Your task to perform on an android device: change the upload size in google photos Image 0: 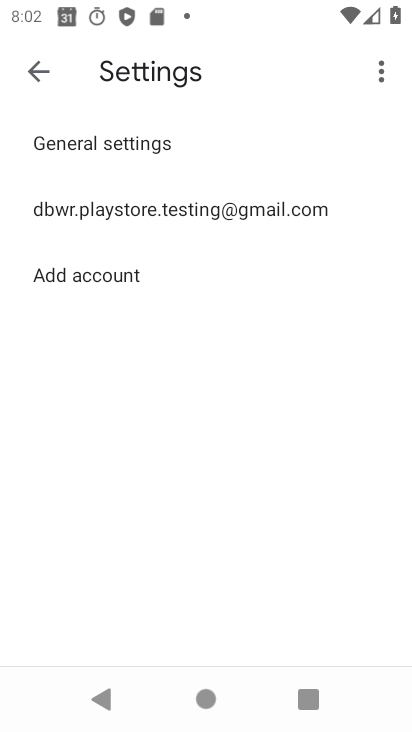
Step 0: press home button
Your task to perform on an android device: change the upload size in google photos Image 1: 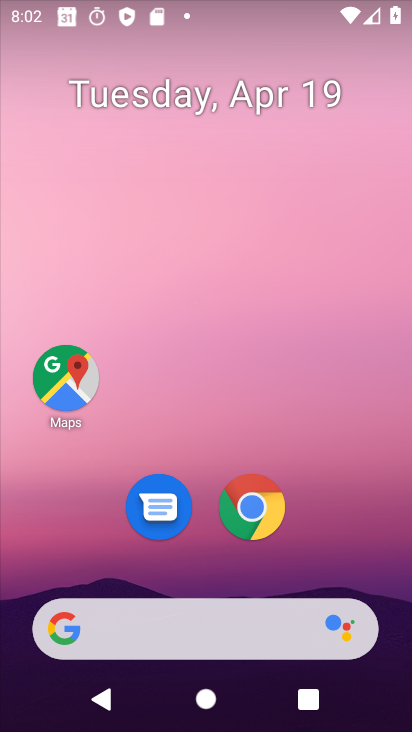
Step 1: drag from (274, 362) to (219, 142)
Your task to perform on an android device: change the upload size in google photos Image 2: 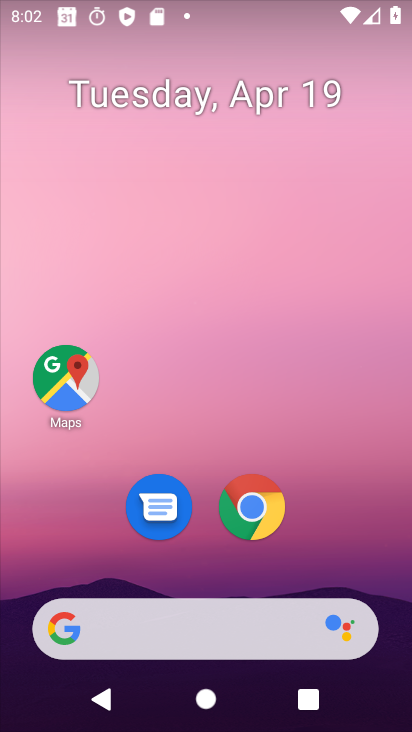
Step 2: drag from (328, 578) to (295, 124)
Your task to perform on an android device: change the upload size in google photos Image 3: 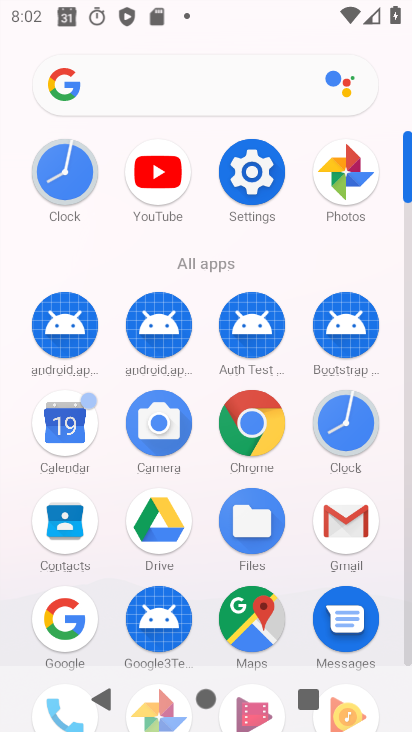
Step 3: click (347, 177)
Your task to perform on an android device: change the upload size in google photos Image 4: 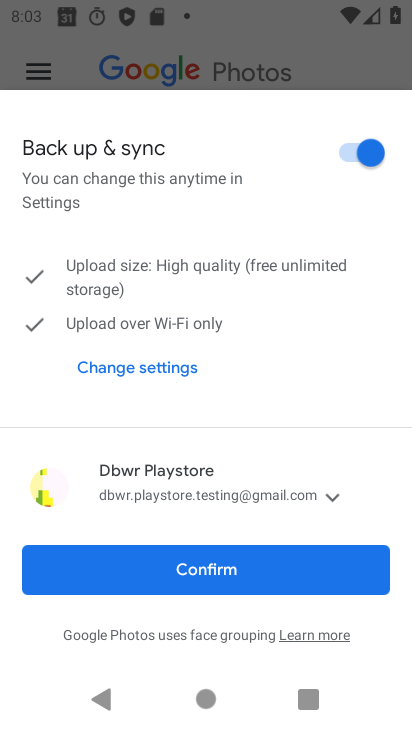
Step 4: click (83, 72)
Your task to perform on an android device: change the upload size in google photos Image 5: 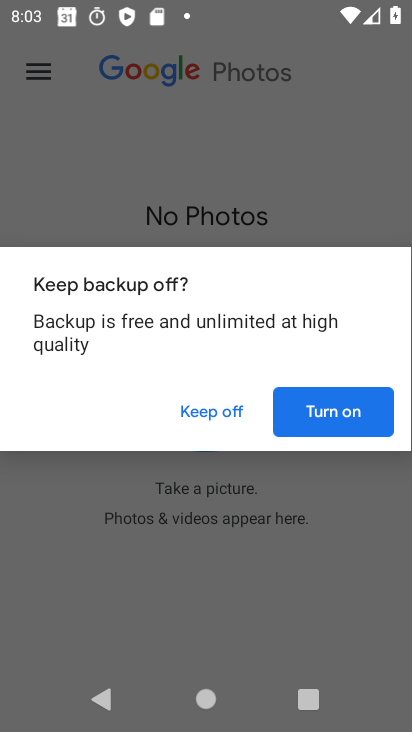
Step 5: click (215, 412)
Your task to perform on an android device: change the upload size in google photos Image 6: 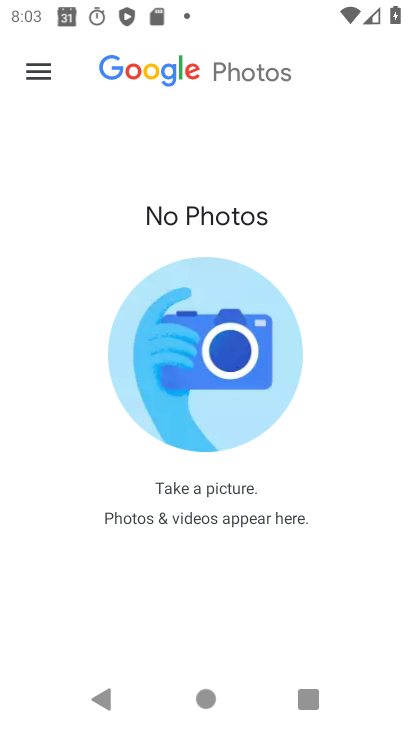
Step 6: click (36, 80)
Your task to perform on an android device: change the upload size in google photos Image 7: 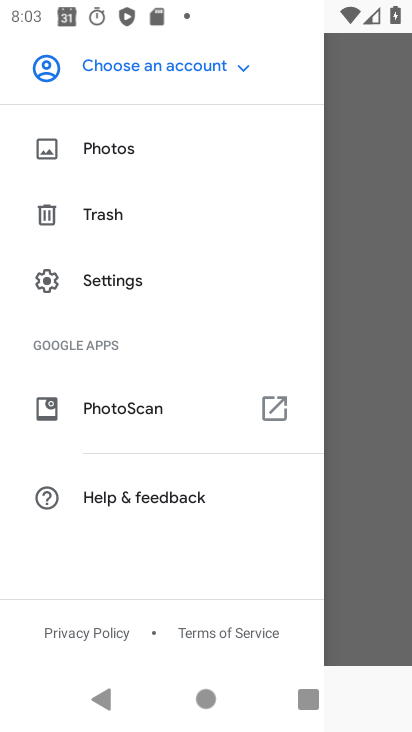
Step 7: click (103, 279)
Your task to perform on an android device: change the upload size in google photos Image 8: 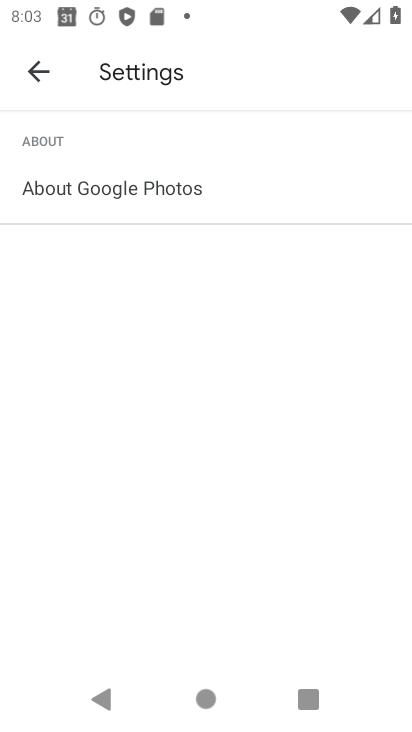
Step 8: click (40, 68)
Your task to perform on an android device: change the upload size in google photos Image 9: 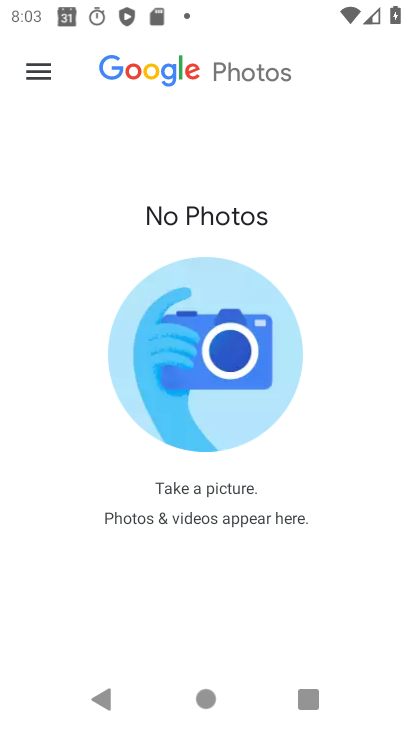
Step 9: click (154, 626)
Your task to perform on an android device: change the upload size in google photos Image 10: 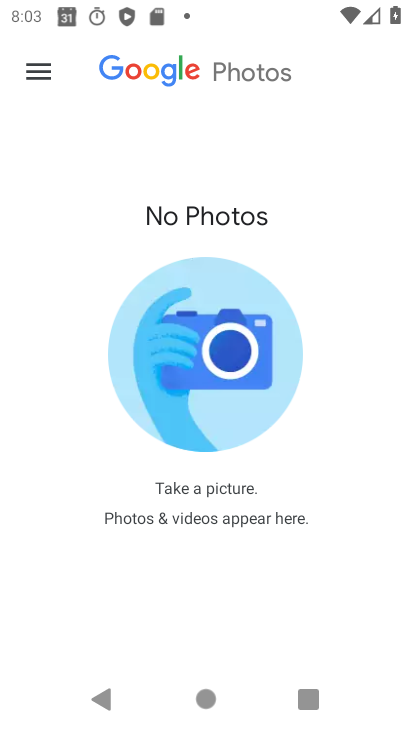
Step 10: press back button
Your task to perform on an android device: change the upload size in google photos Image 11: 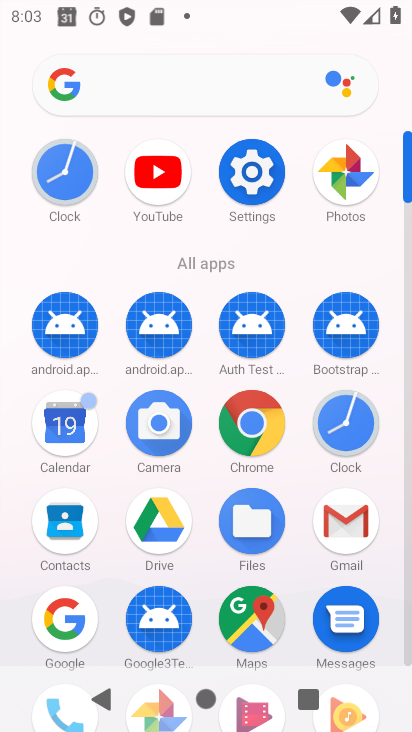
Step 11: click (335, 177)
Your task to perform on an android device: change the upload size in google photos Image 12: 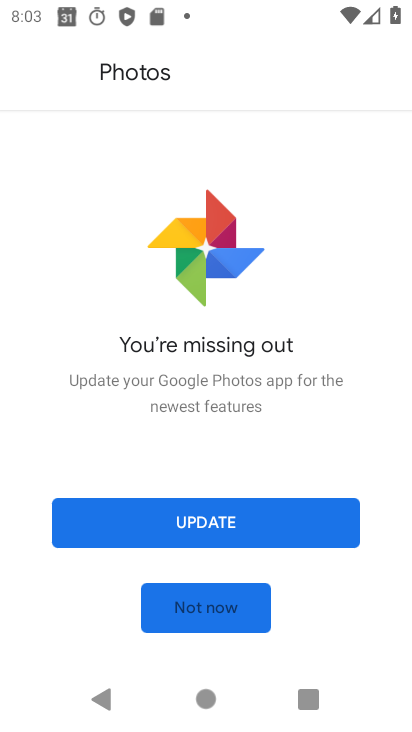
Step 12: click (231, 521)
Your task to perform on an android device: change the upload size in google photos Image 13: 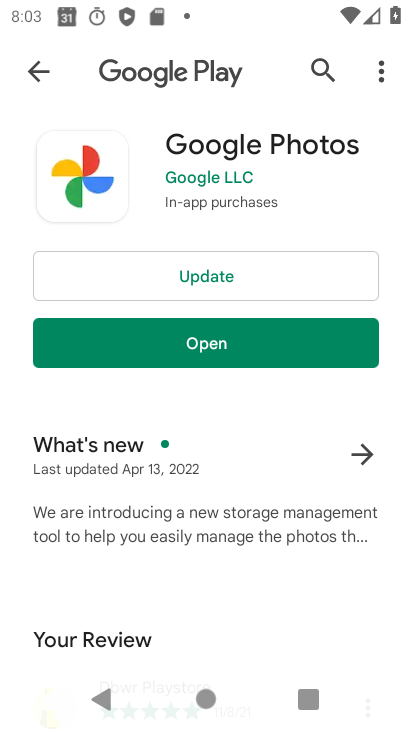
Step 13: click (215, 273)
Your task to perform on an android device: change the upload size in google photos Image 14: 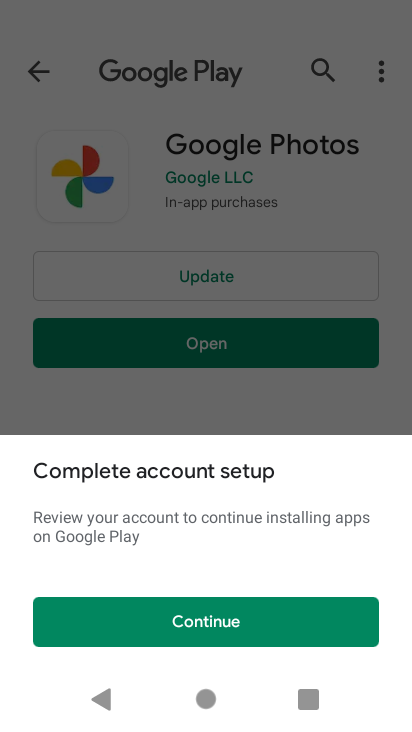
Step 14: click (180, 610)
Your task to perform on an android device: change the upload size in google photos Image 15: 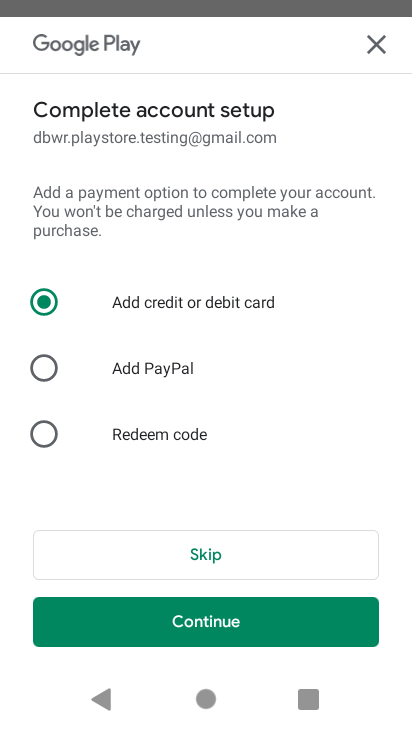
Step 15: click (203, 564)
Your task to perform on an android device: change the upload size in google photos Image 16: 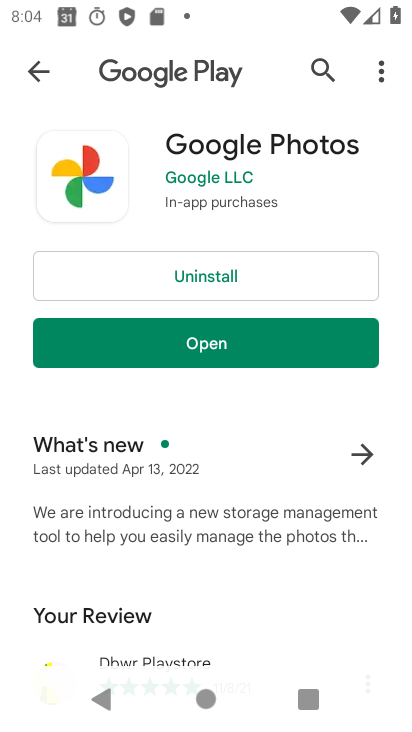
Step 16: click (245, 336)
Your task to perform on an android device: change the upload size in google photos Image 17: 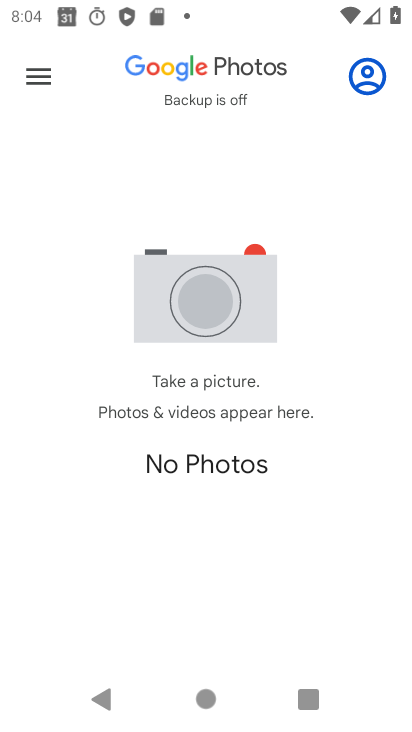
Step 17: click (374, 75)
Your task to perform on an android device: change the upload size in google photos Image 18: 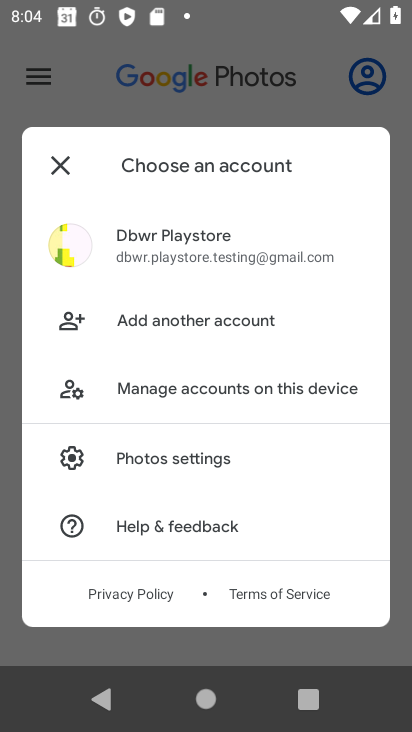
Step 18: click (222, 256)
Your task to perform on an android device: change the upload size in google photos Image 19: 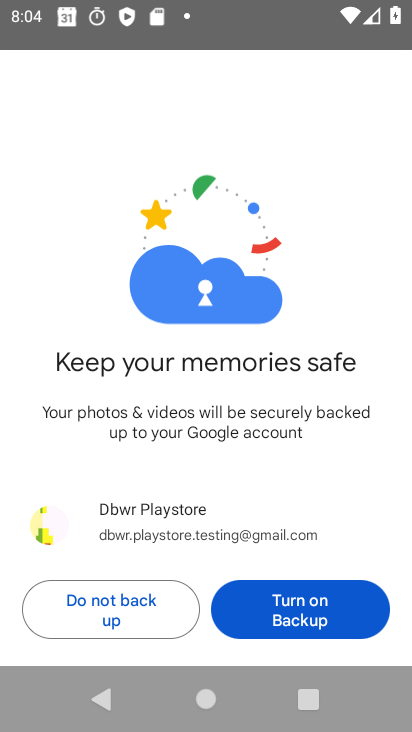
Step 19: click (314, 618)
Your task to perform on an android device: change the upload size in google photos Image 20: 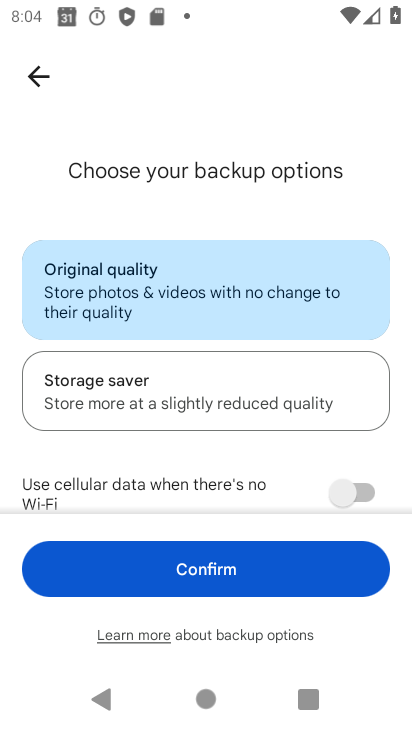
Step 20: click (158, 392)
Your task to perform on an android device: change the upload size in google photos Image 21: 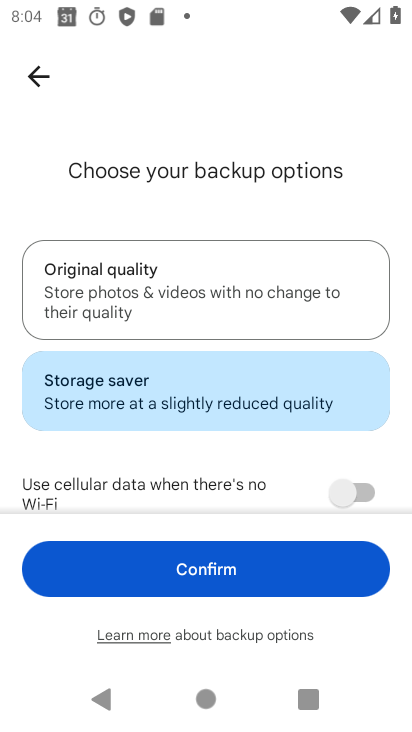
Step 21: drag from (175, 471) to (182, 244)
Your task to perform on an android device: change the upload size in google photos Image 22: 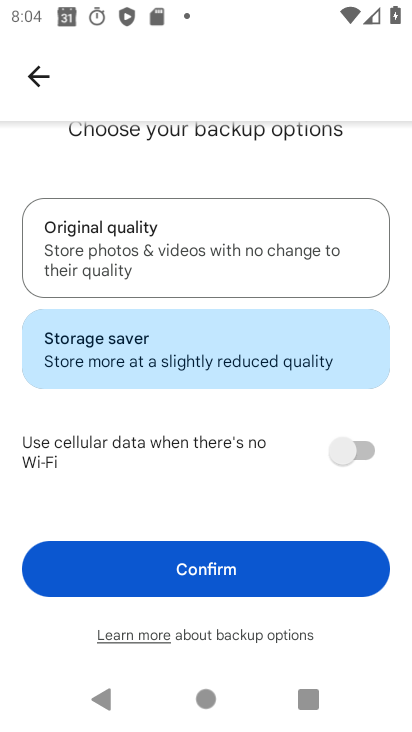
Step 22: click (183, 562)
Your task to perform on an android device: change the upload size in google photos Image 23: 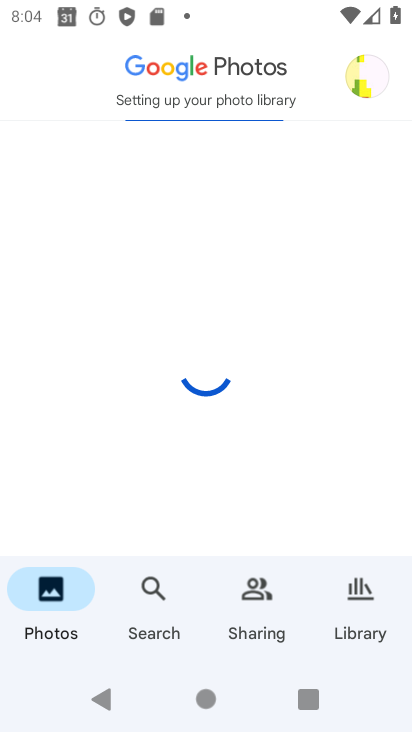
Step 23: task complete